Your task to perform on an android device: Show me the alarms in the clock app Image 0: 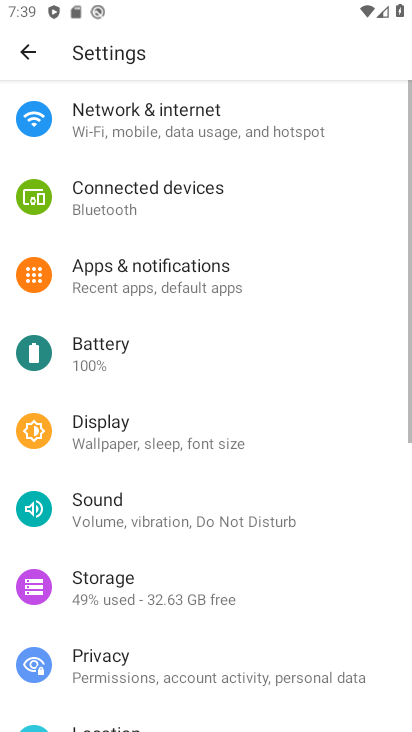
Step 0: press home button
Your task to perform on an android device: Show me the alarms in the clock app Image 1: 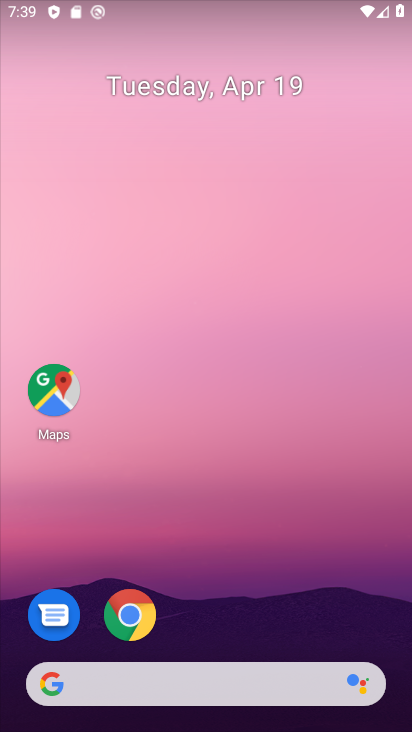
Step 1: drag from (270, 602) to (251, 85)
Your task to perform on an android device: Show me the alarms in the clock app Image 2: 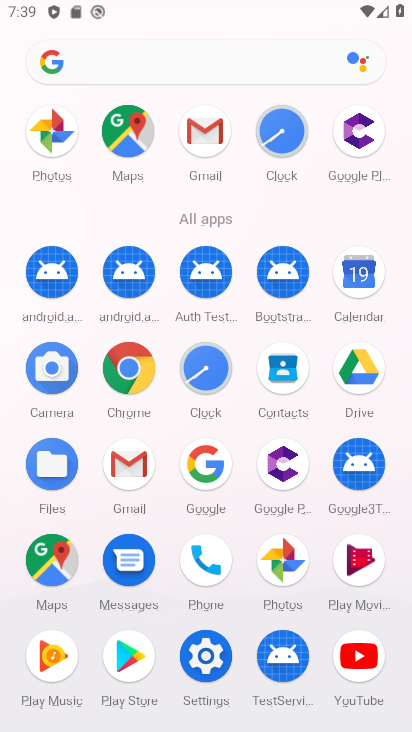
Step 2: click (286, 153)
Your task to perform on an android device: Show me the alarms in the clock app Image 3: 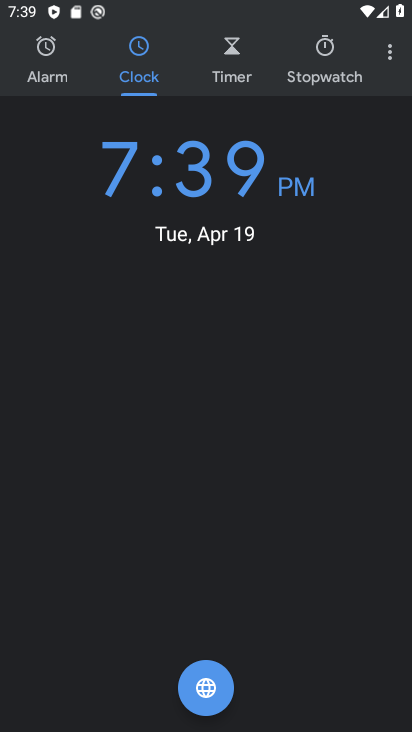
Step 3: click (46, 60)
Your task to perform on an android device: Show me the alarms in the clock app Image 4: 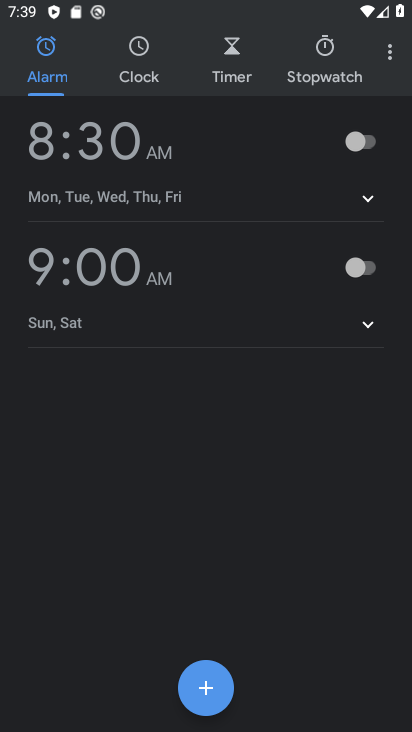
Step 4: task complete